Your task to perform on an android device: Open location settings Image 0: 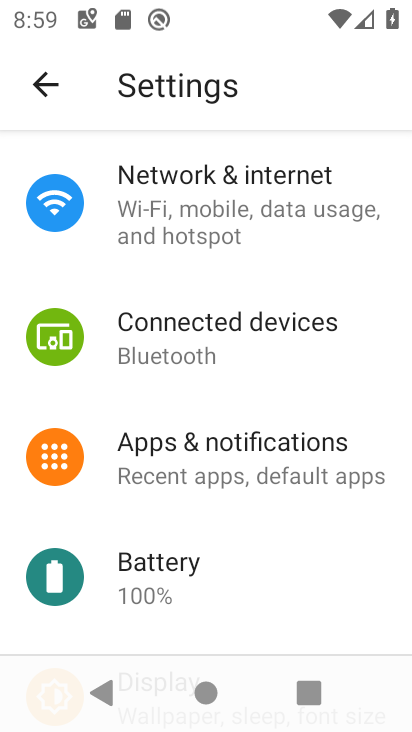
Step 0: drag from (262, 541) to (262, 219)
Your task to perform on an android device: Open location settings Image 1: 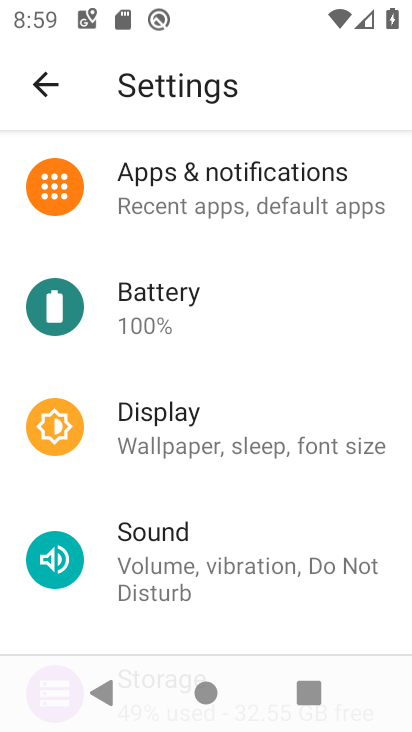
Step 1: drag from (254, 577) to (262, 232)
Your task to perform on an android device: Open location settings Image 2: 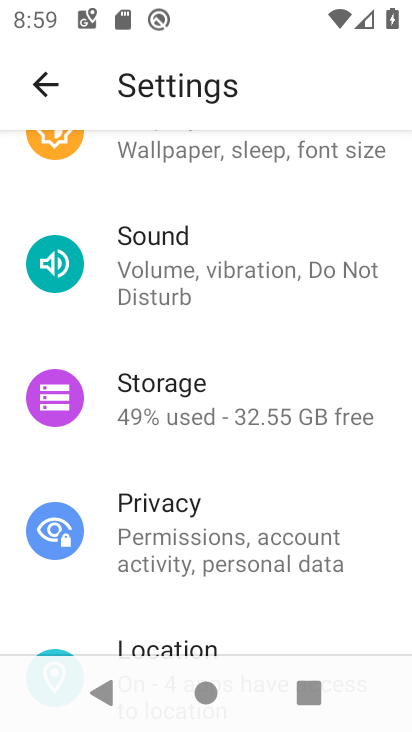
Step 2: drag from (248, 587) to (259, 324)
Your task to perform on an android device: Open location settings Image 3: 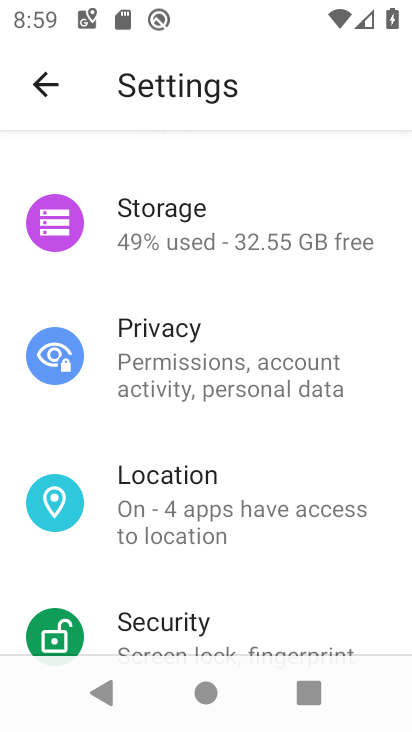
Step 3: click (243, 482)
Your task to perform on an android device: Open location settings Image 4: 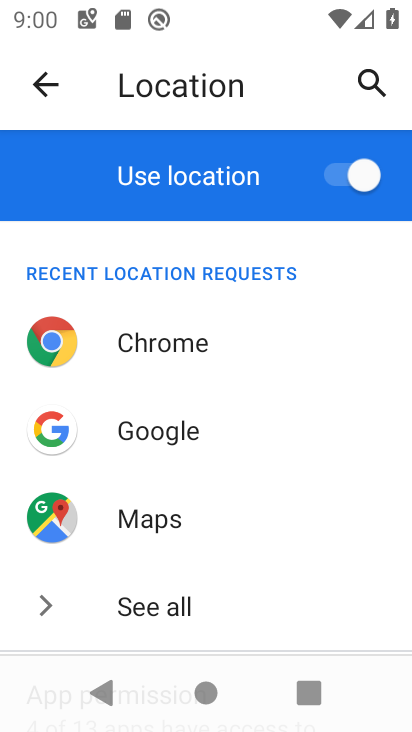
Step 4: task complete